Your task to perform on an android device: Empty the shopping cart on ebay. Add logitech g502 to the cart on ebay Image 0: 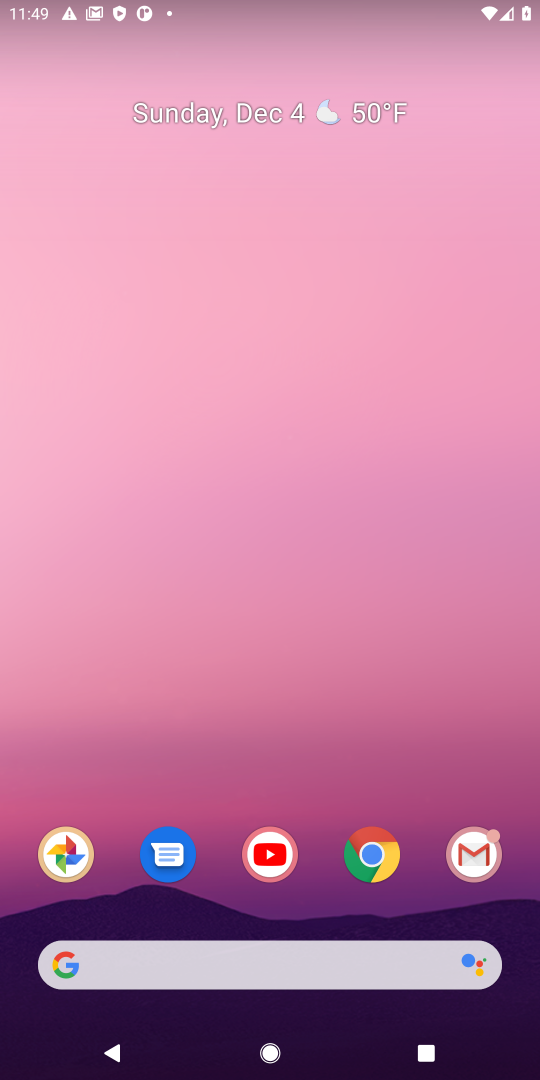
Step 0: press home button
Your task to perform on an android device: Empty the shopping cart on ebay. Add logitech g502 to the cart on ebay Image 1: 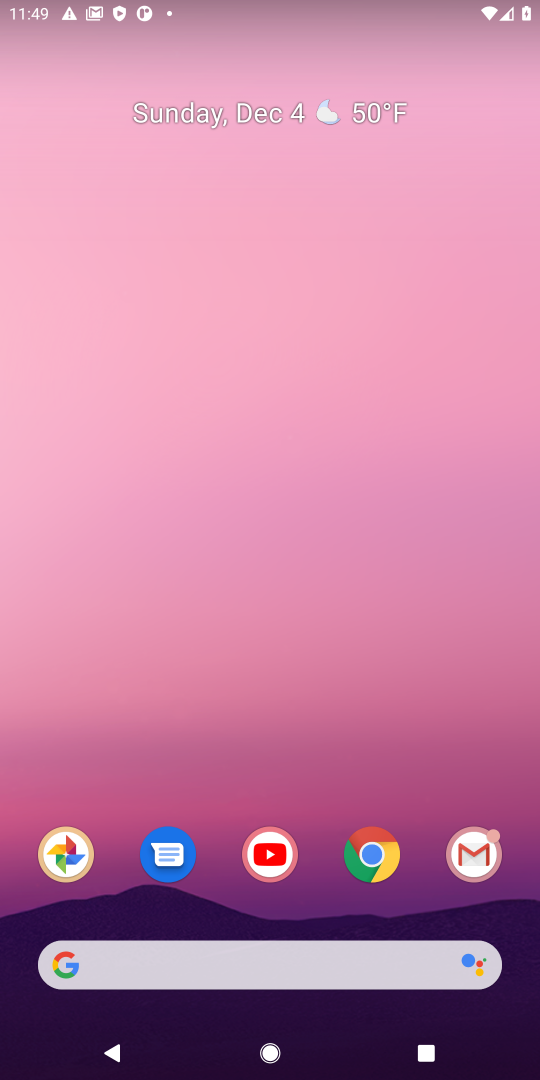
Step 1: click (370, 948)
Your task to perform on an android device: Empty the shopping cart on ebay. Add logitech g502 to the cart on ebay Image 2: 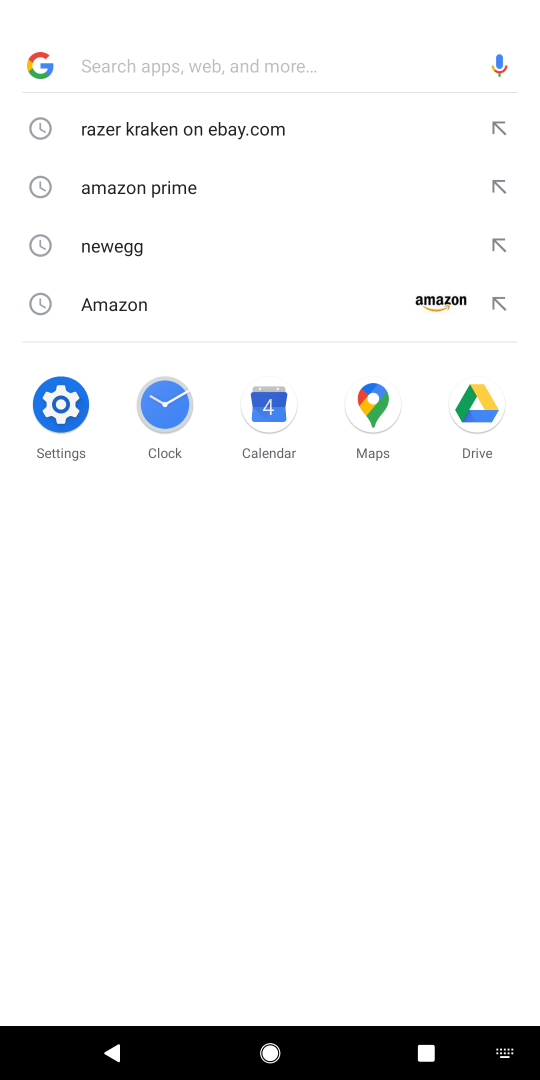
Step 2: type "ebay"
Your task to perform on an android device: Empty the shopping cart on ebay. Add logitech g502 to the cart on ebay Image 3: 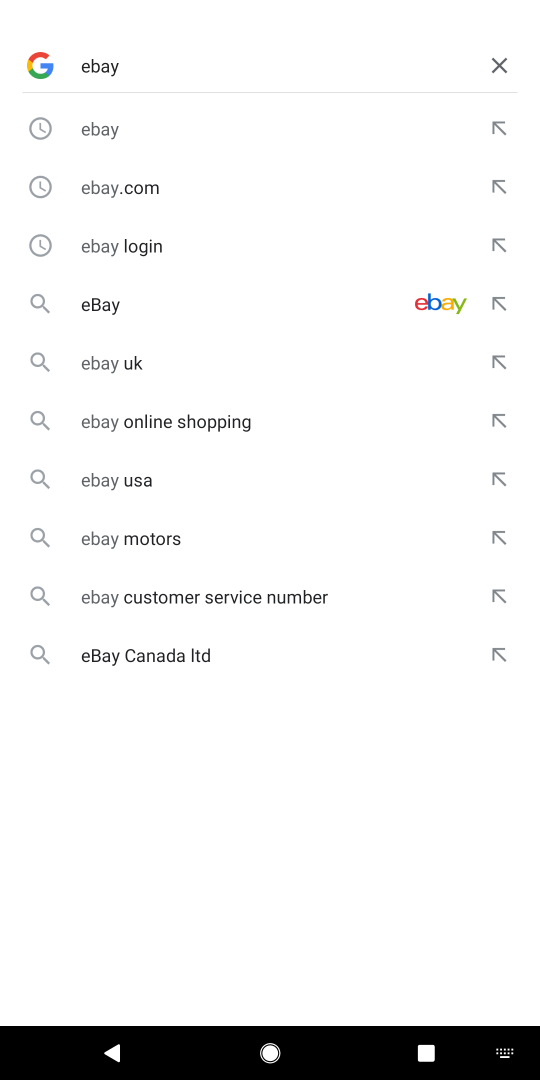
Step 3: click (142, 309)
Your task to perform on an android device: Empty the shopping cart on ebay. Add logitech g502 to the cart on ebay Image 4: 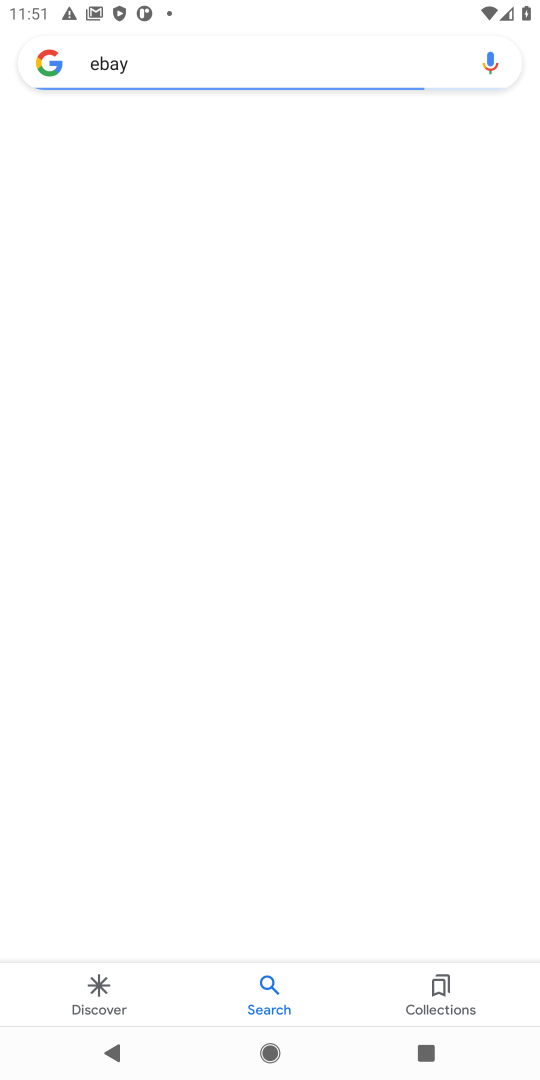
Step 4: task complete